Your task to perform on an android device: Open my contact list Image 0: 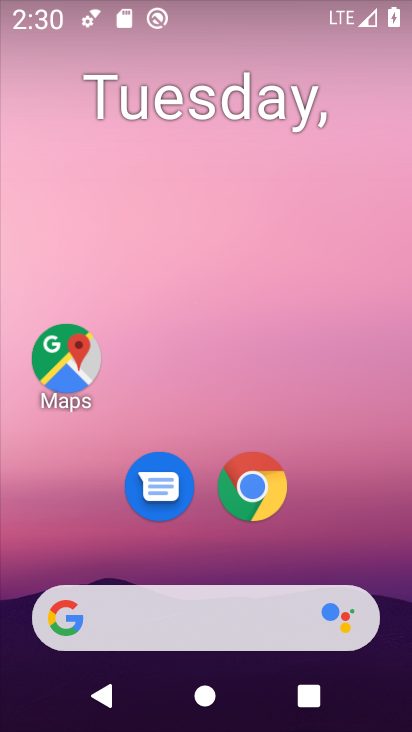
Step 0: press home button
Your task to perform on an android device: Open my contact list Image 1: 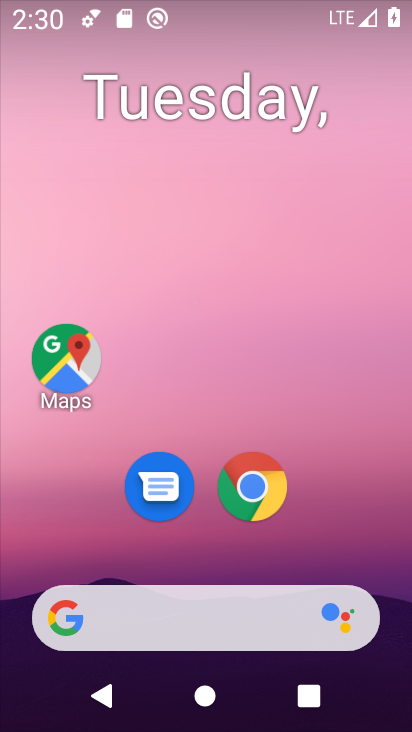
Step 1: drag from (372, 535) to (368, 103)
Your task to perform on an android device: Open my contact list Image 2: 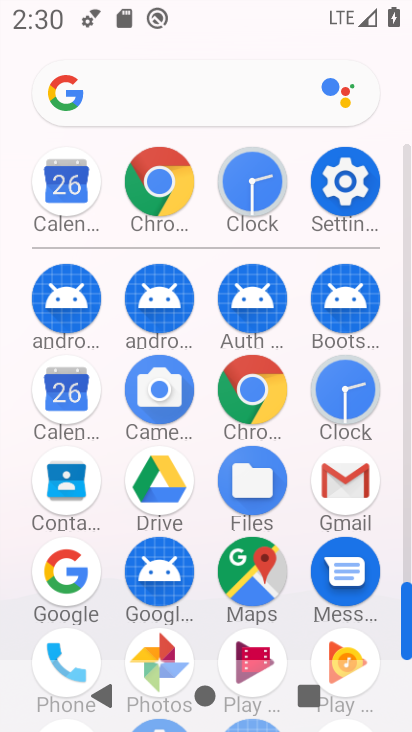
Step 2: click (67, 499)
Your task to perform on an android device: Open my contact list Image 3: 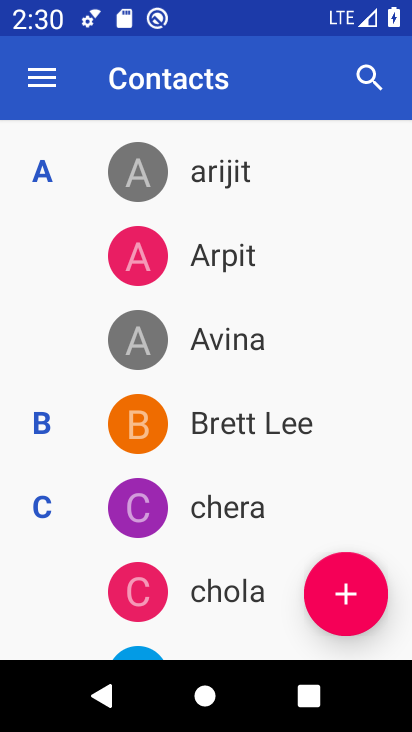
Step 3: task complete